Your task to perform on an android device: Show me recent news Image 0: 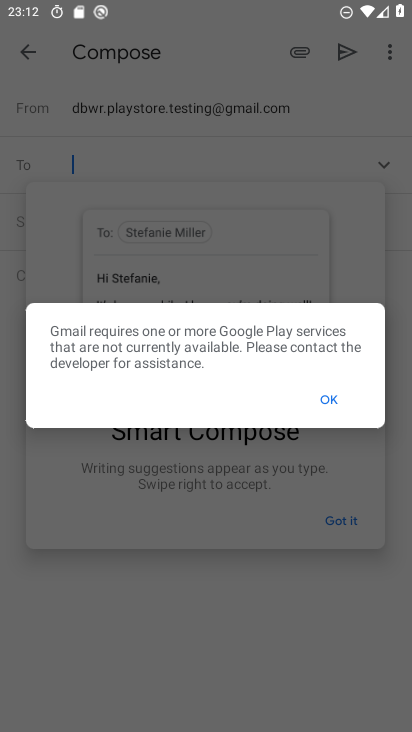
Step 0: press home button
Your task to perform on an android device: Show me recent news Image 1: 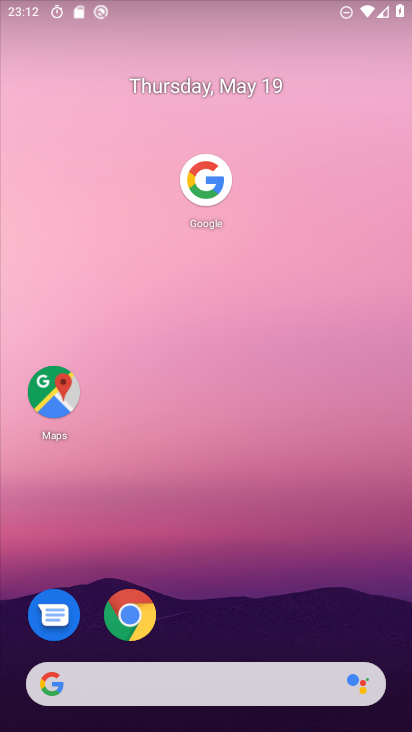
Step 1: drag from (236, 594) to (279, 32)
Your task to perform on an android device: Show me recent news Image 2: 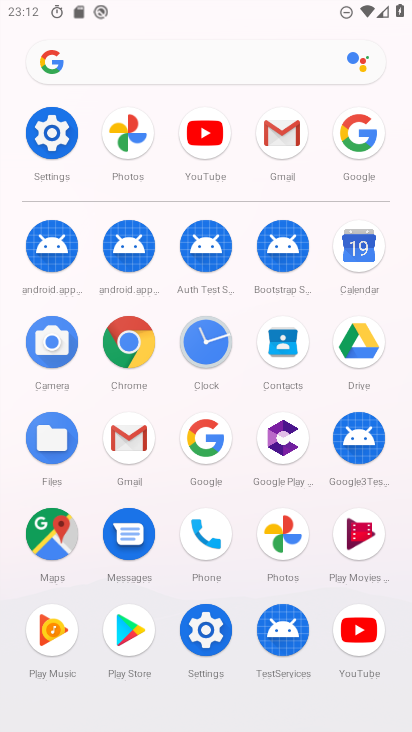
Step 2: click (205, 424)
Your task to perform on an android device: Show me recent news Image 3: 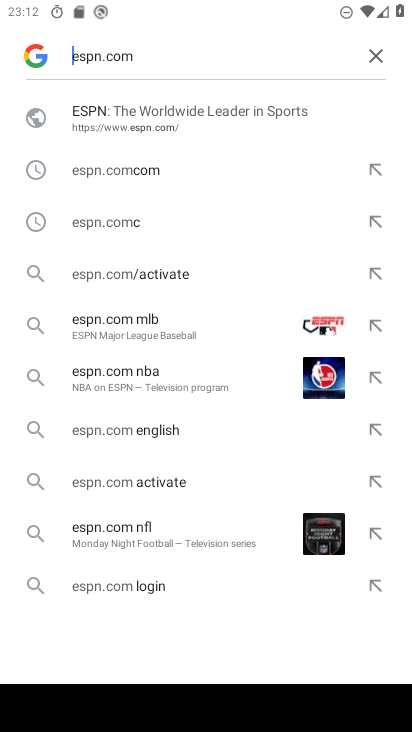
Step 3: click (170, 58)
Your task to perform on an android device: Show me recent news Image 4: 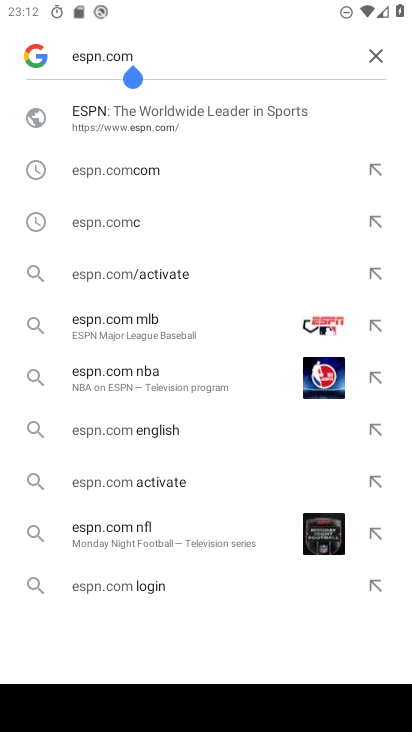
Step 4: click (368, 56)
Your task to perform on an android device: Show me recent news Image 5: 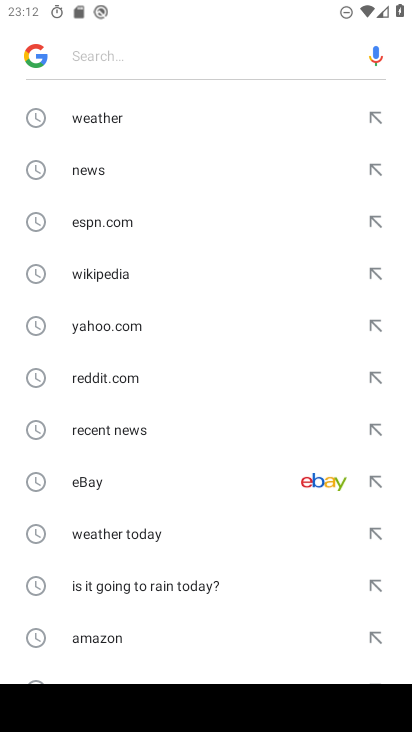
Step 5: click (130, 430)
Your task to perform on an android device: Show me recent news Image 6: 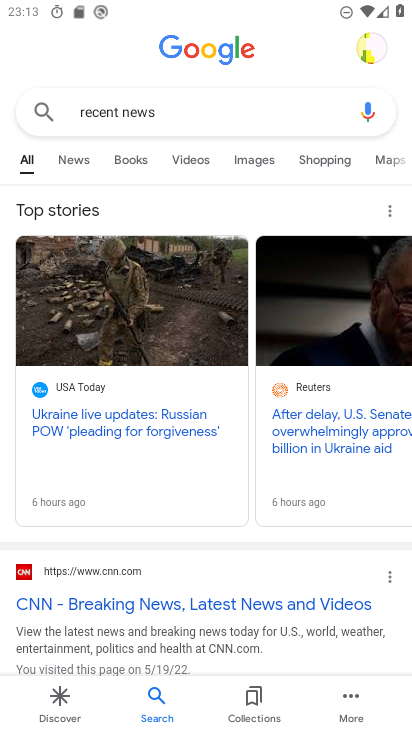
Step 6: task complete